Your task to perform on an android device: Go to battery settings Image 0: 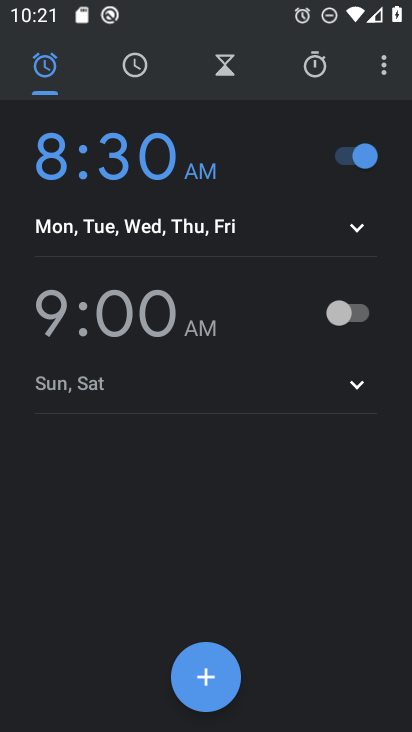
Step 0: press home button
Your task to perform on an android device: Go to battery settings Image 1: 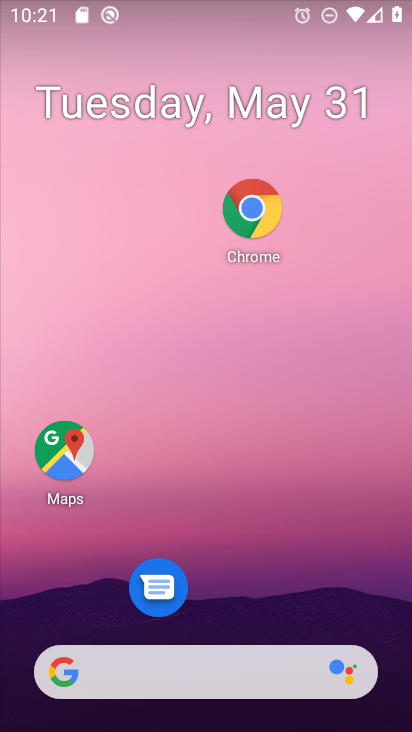
Step 1: drag from (235, 626) to (219, 126)
Your task to perform on an android device: Go to battery settings Image 2: 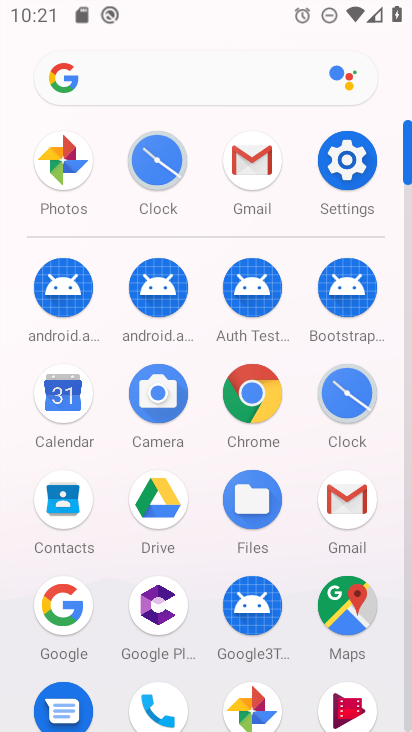
Step 2: click (342, 153)
Your task to perform on an android device: Go to battery settings Image 3: 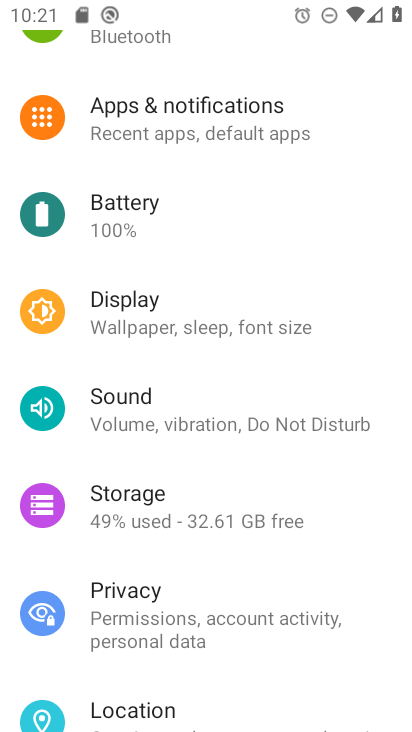
Step 3: click (171, 207)
Your task to perform on an android device: Go to battery settings Image 4: 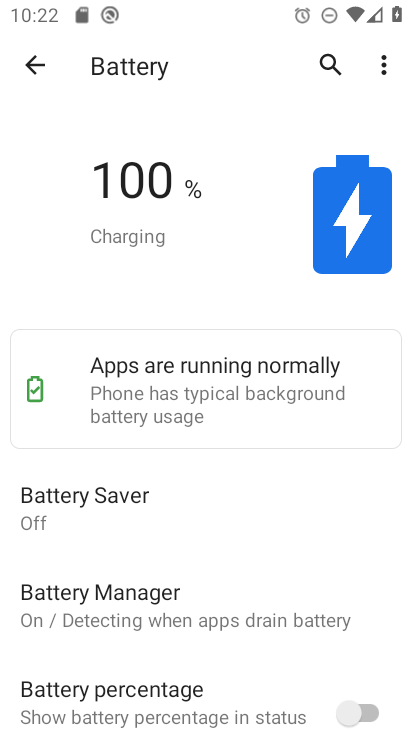
Step 4: task complete